Your task to perform on an android device: empty trash in google photos Image 0: 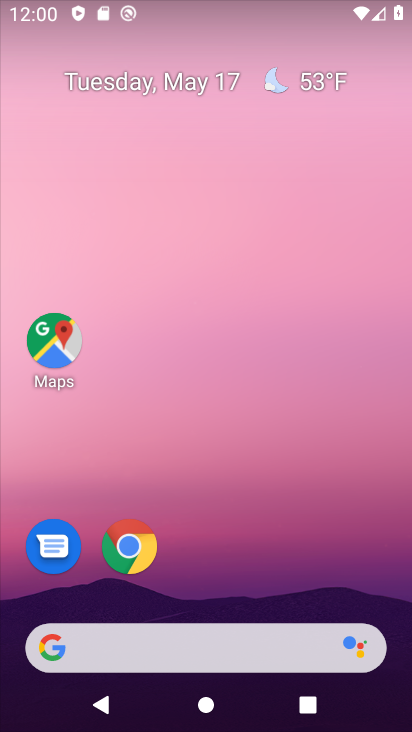
Step 0: drag from (203, 645) to (287, 275)
Your task to perform on an android device: empty trash in google photos Image 1: 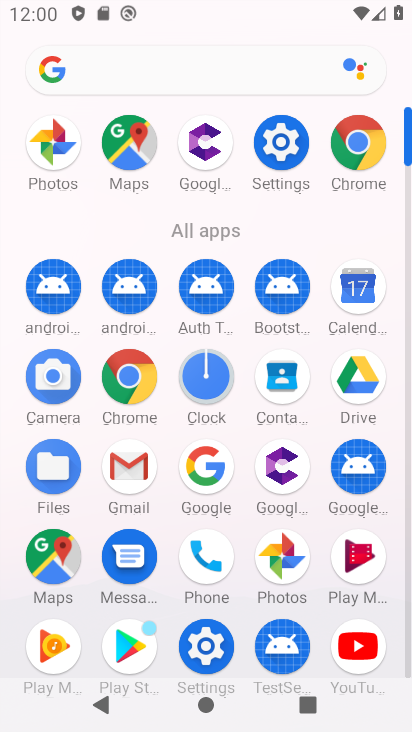
Step 1: click (296, 555)
Your task to perform on an android device: empty trash in google photos Image 2: 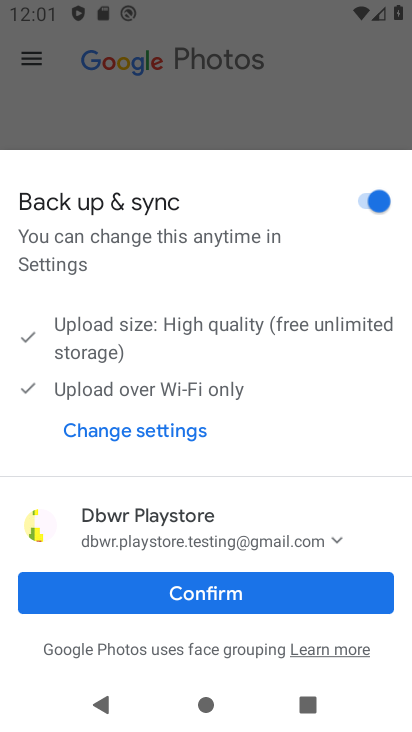
Step 2: click (221, 598)
Your task to perform on an android device: empty trash in google photos Image 3: 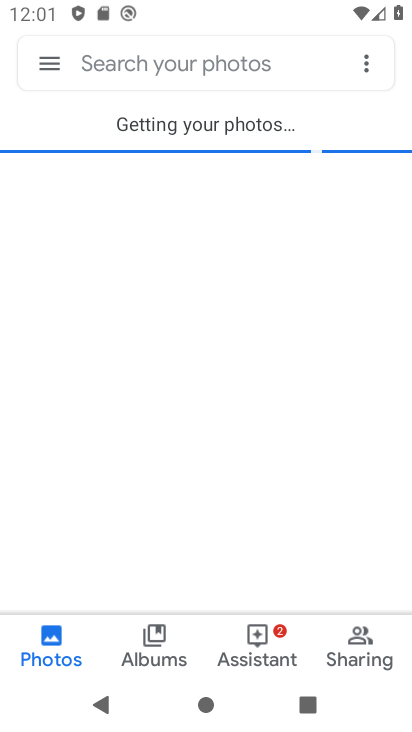
Step 3: click (48, 55)
Your task to perform on an android device: empty trash in google photos Image 4: 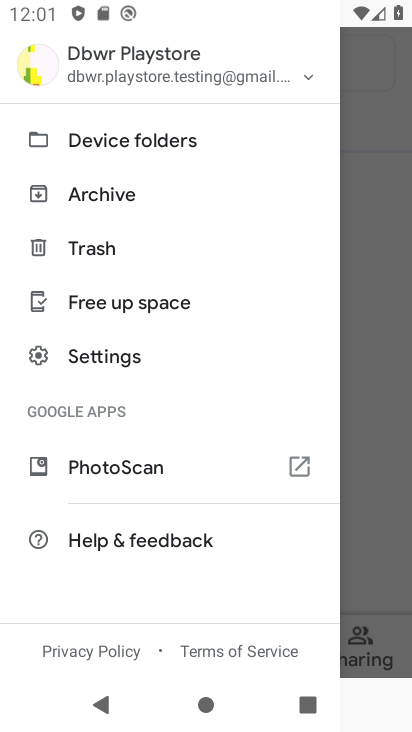
Step 4: click (87, 252)
Your task to perform on an android device: empty trash in google photos Image 5: 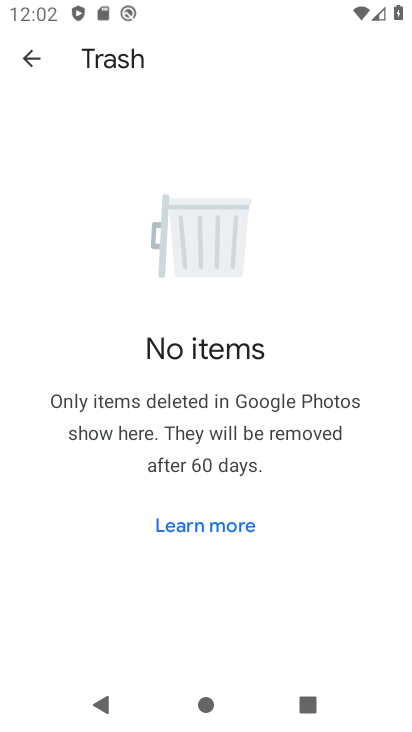
Step 5: task complete